Your task to perform on an android device: change your default location settings in chrome Image 0: 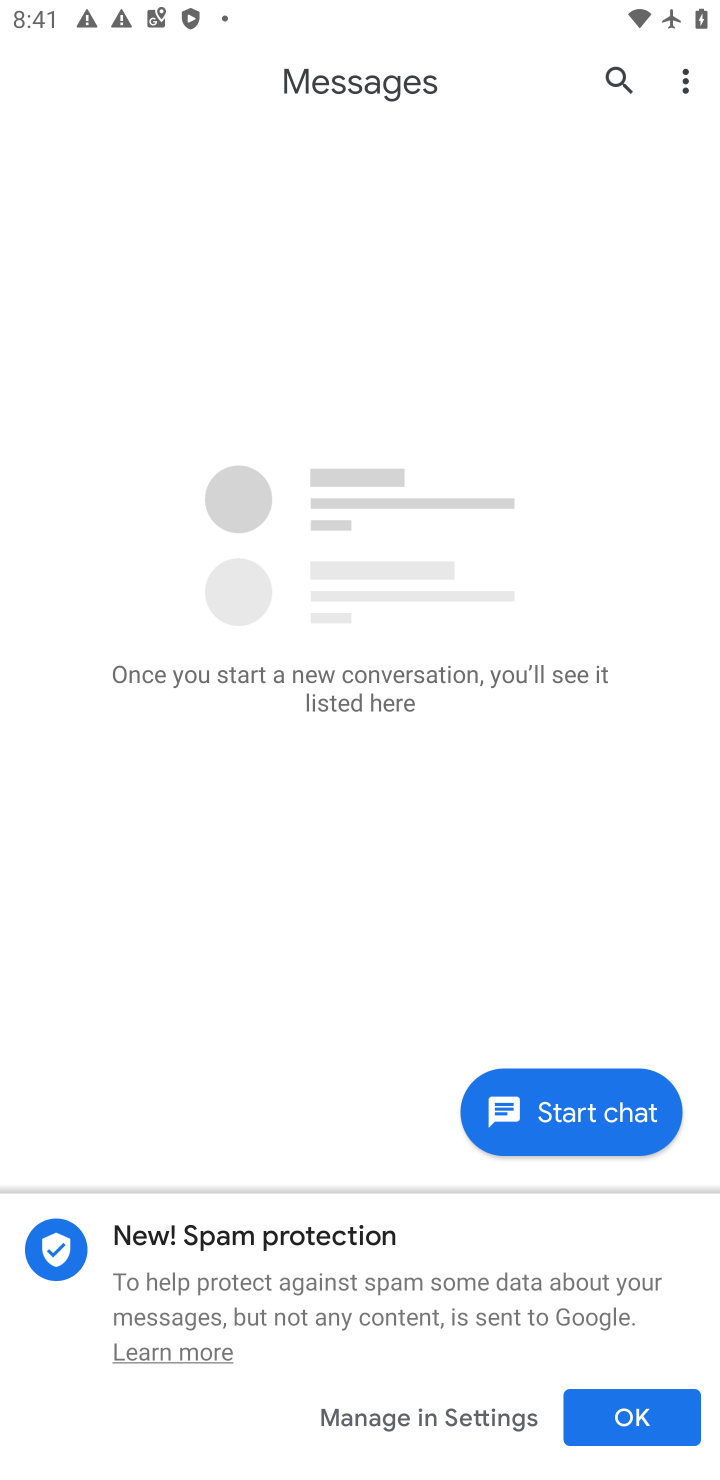
Step 0: press home button
Your task to perform on an android device: change your default location settings in chrome Image 1: 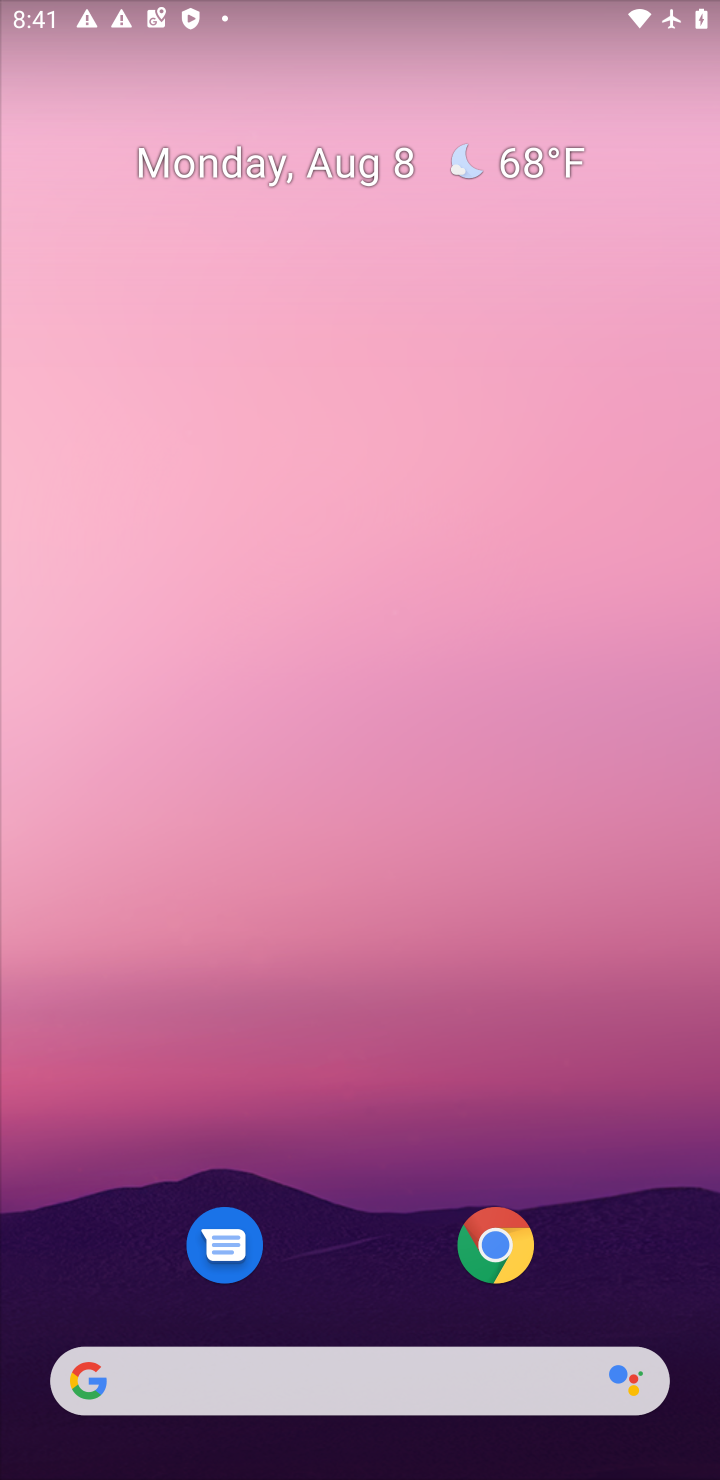
Step 1: drag from (333, 1217) to (472, 19)
Your task to perform on an android device: change your default location settings in chrome Image 2: 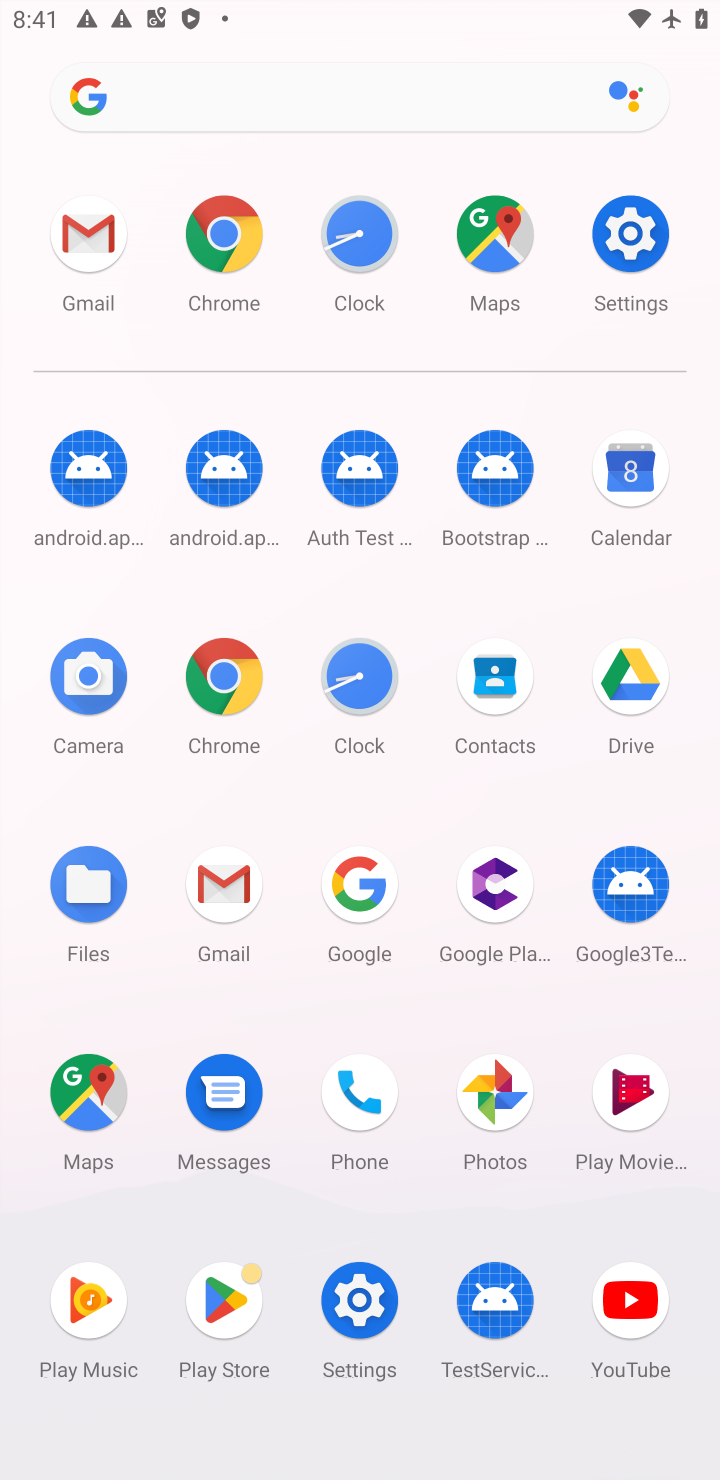
Step 2: click (219, 286)
Your task to perform on an android device: change your default location settings in chrome Image 3: 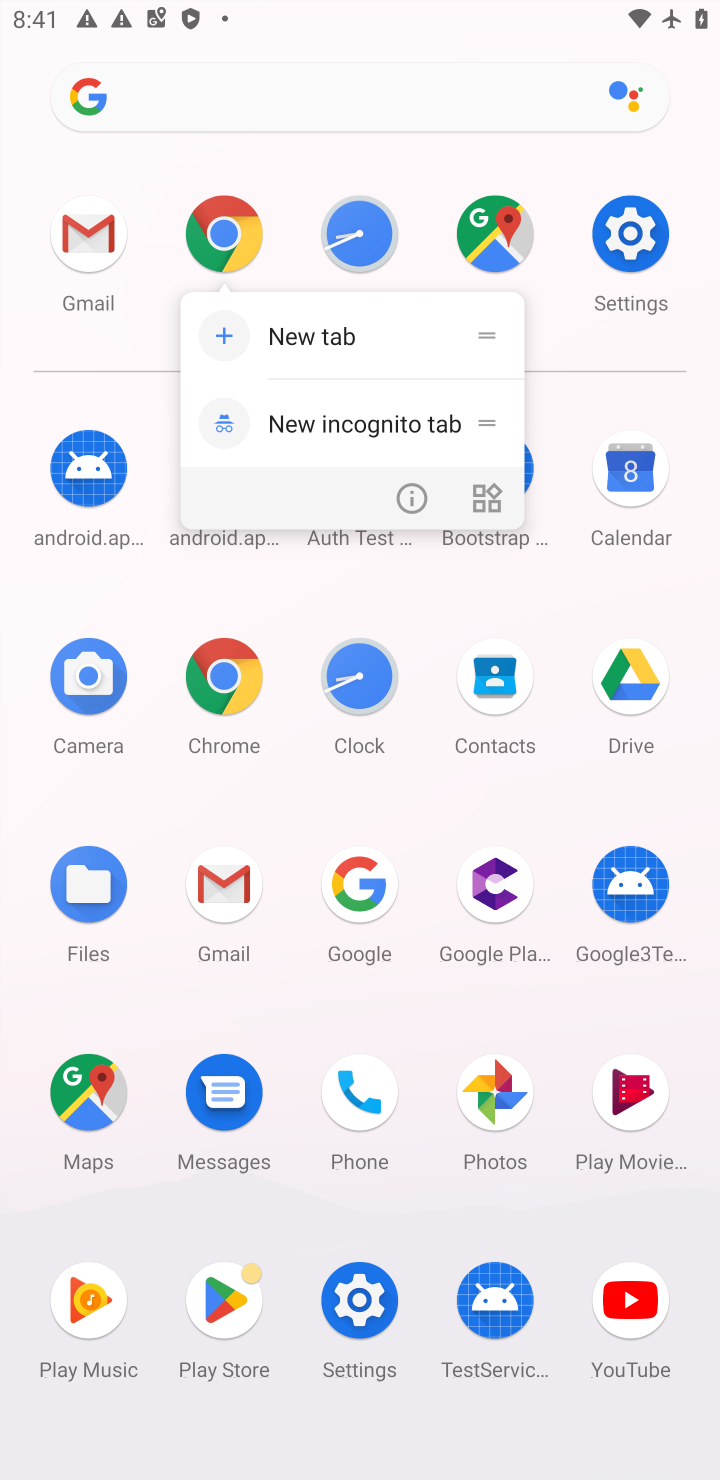
Step 3: click (203, 229)
Your task to perform on an android device: change your default location settings in chrome Image 4: 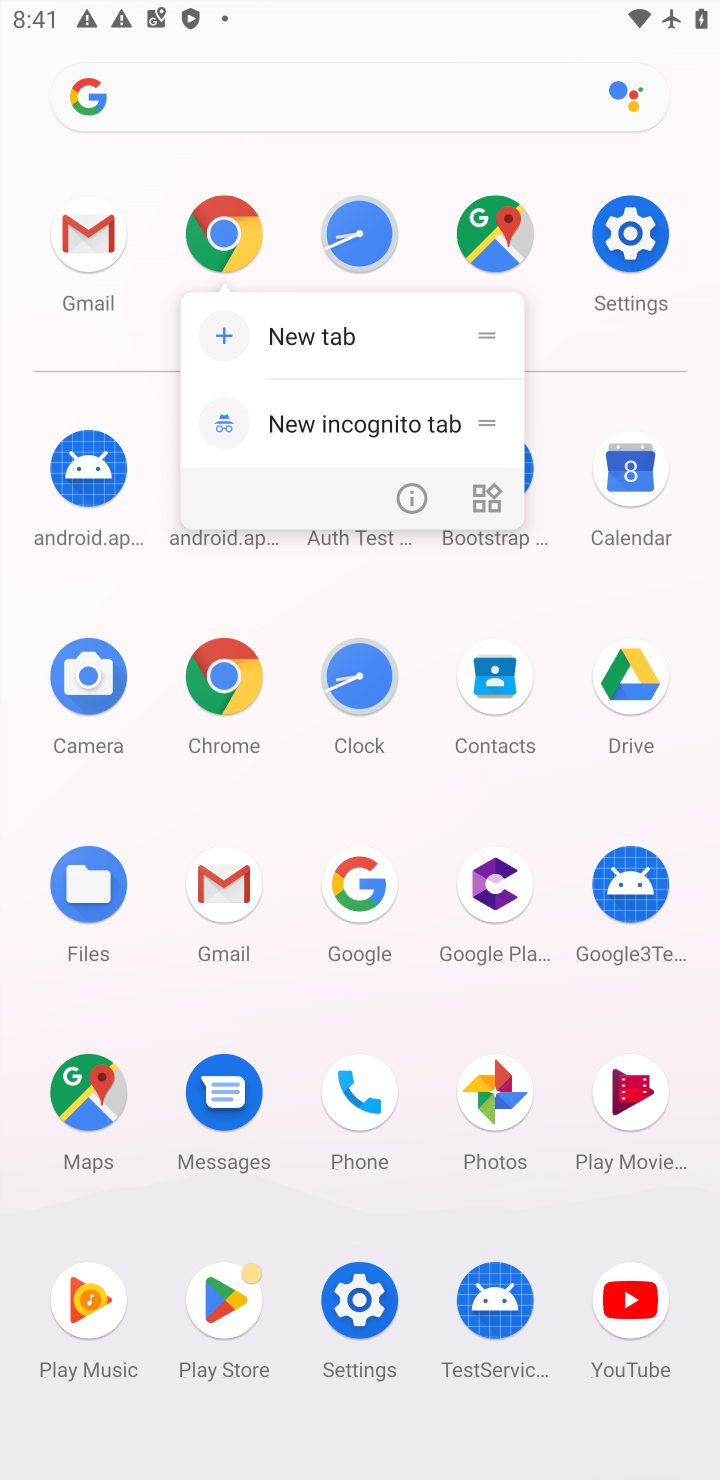
Step 4: click (212, 236)
Your task to perform on an android device: change your default location settings in chrome Image 5: 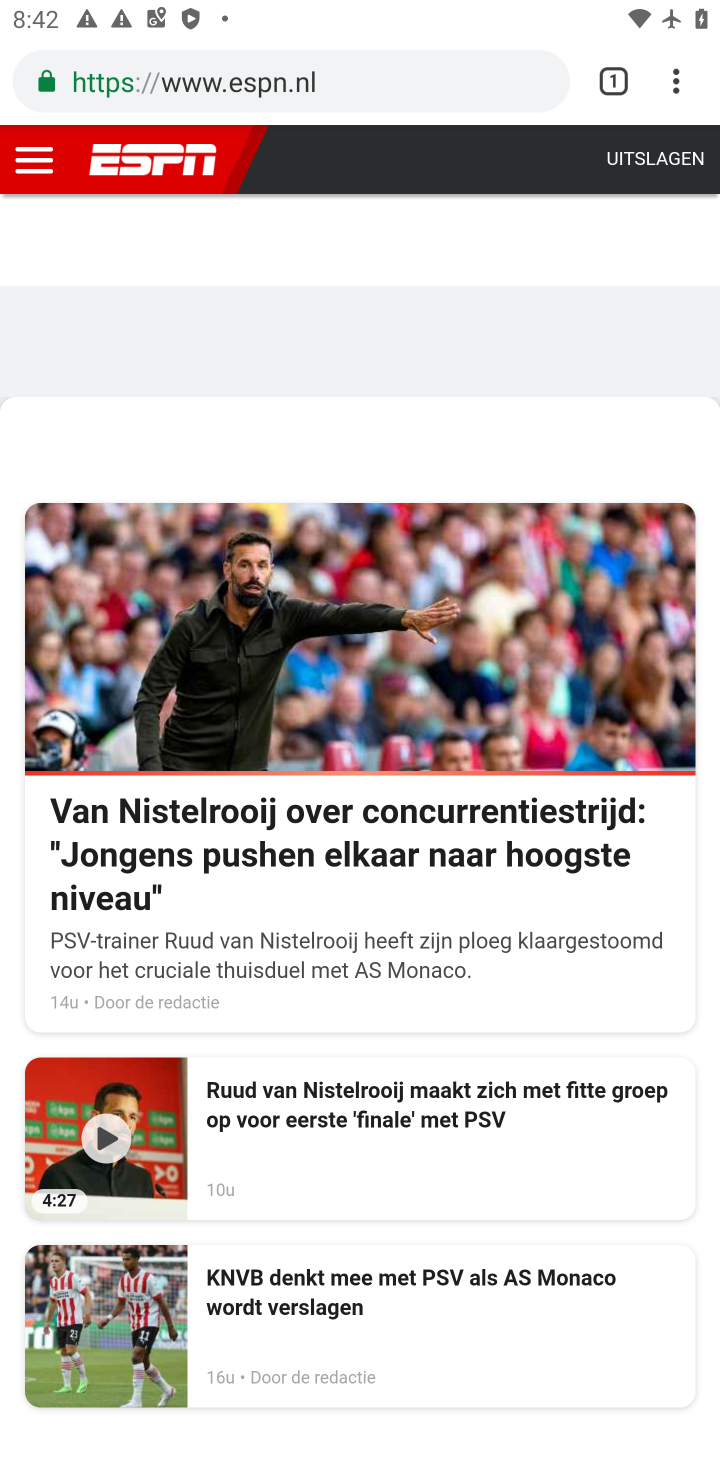
Step 5: click (661, 71)
Your task to perform on an android device: change your default location settings in chrome Image 6: 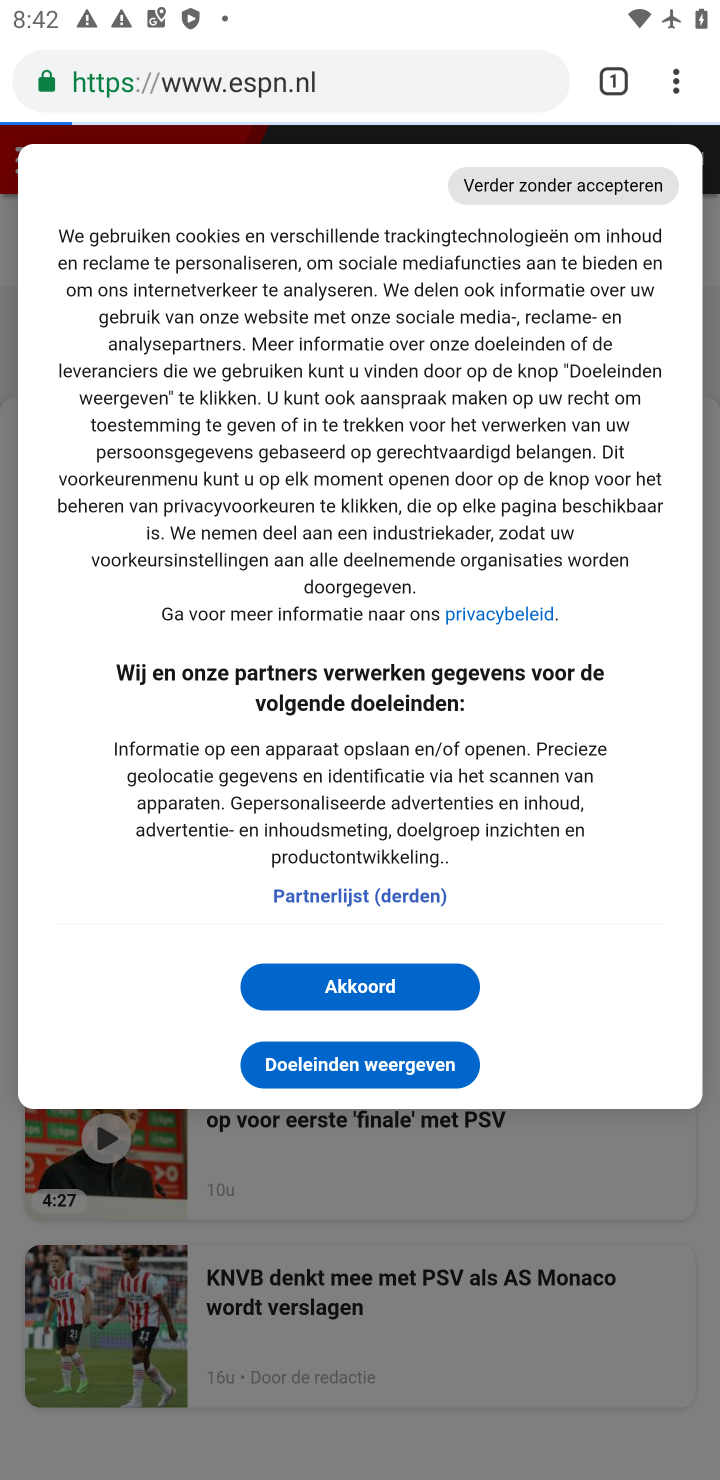
Step 6: click (658, 75)
Your task to perform on an android device: change your default location settings in chrome Image 7: 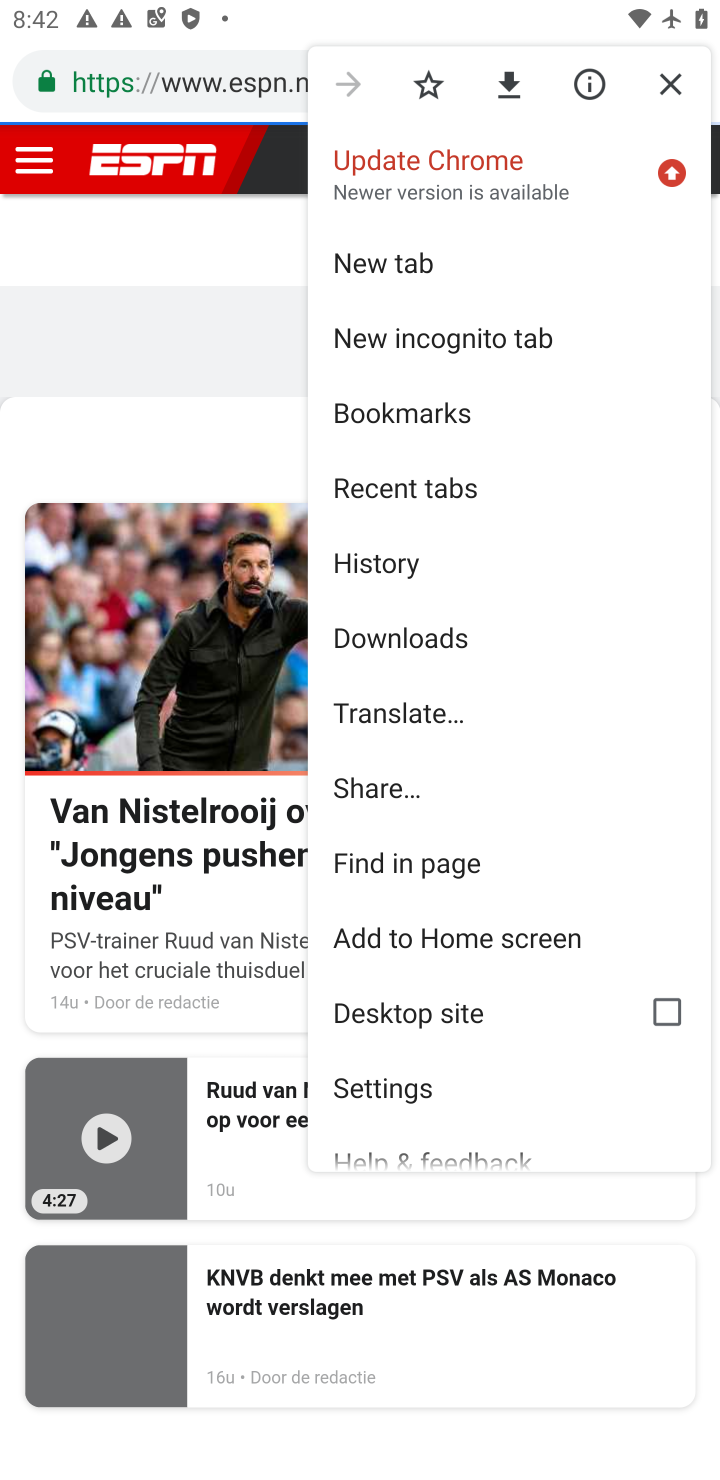
Step 7: click (420, 1095)
Your task to perform on an android device: change your default location settings in chrome Image 8: 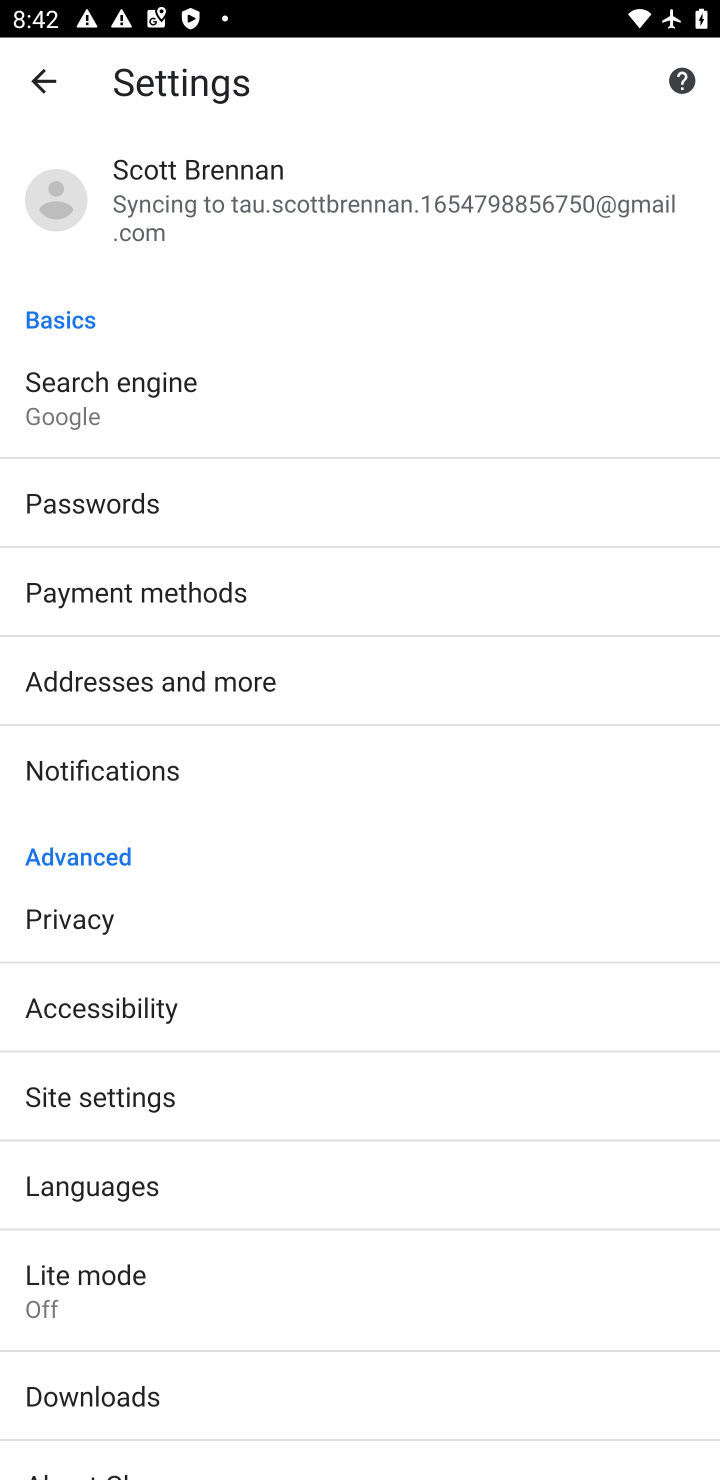
Step 8: click (112, 1102)
Your task to perform on an android device: change your default location settings in chrome Image 9: 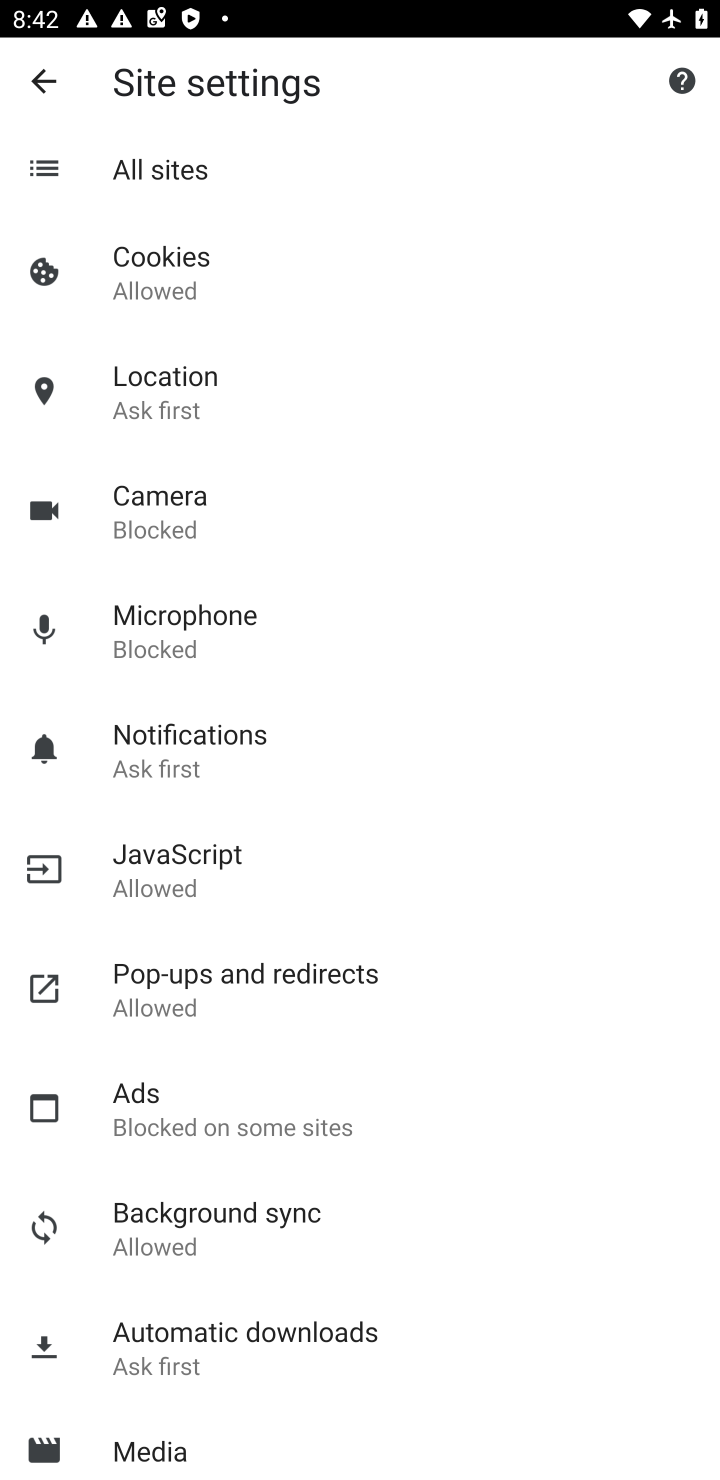
Step 9: click (186, 396)
Your task to perform on an android device: change your default location settings in chrome Image 10: 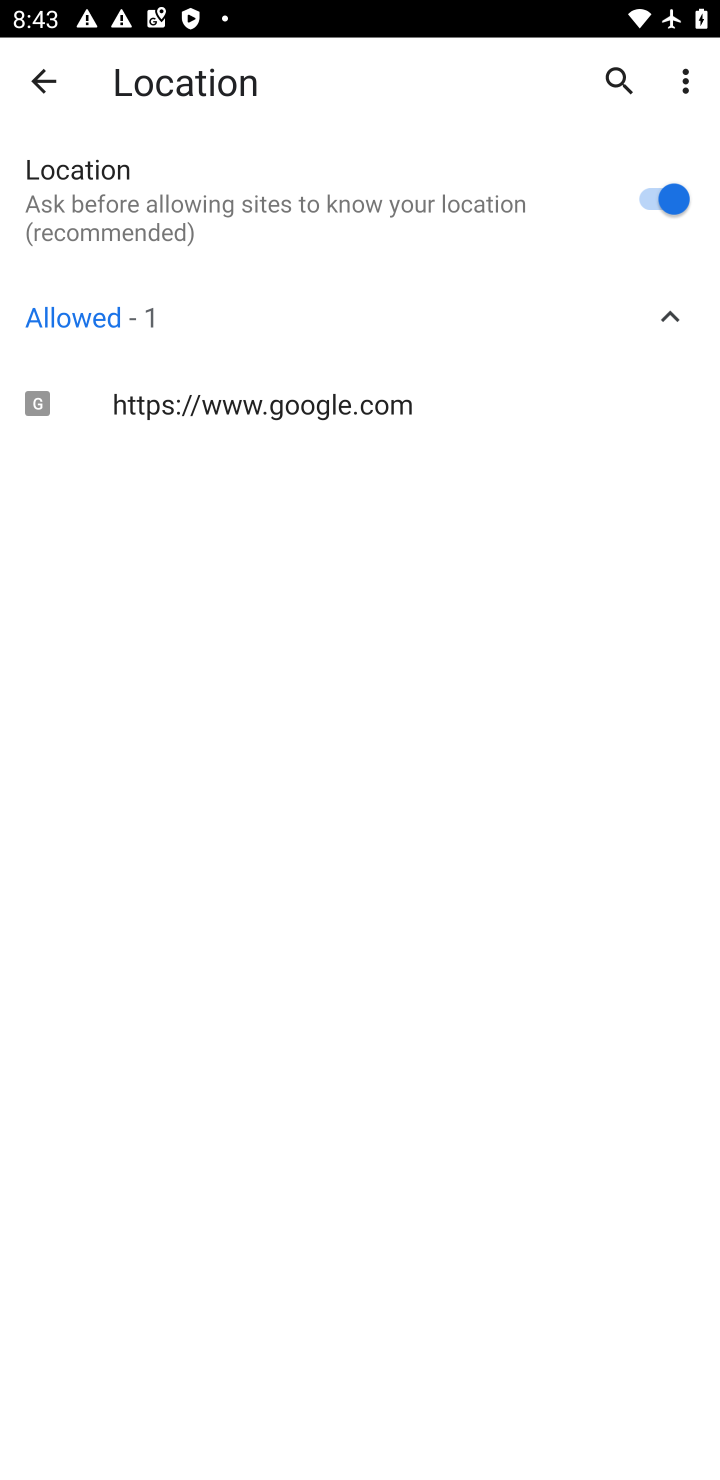
Step 10: click (612, 186)
Your task to perform on an android device: change your default location settings in chrome Image 11: 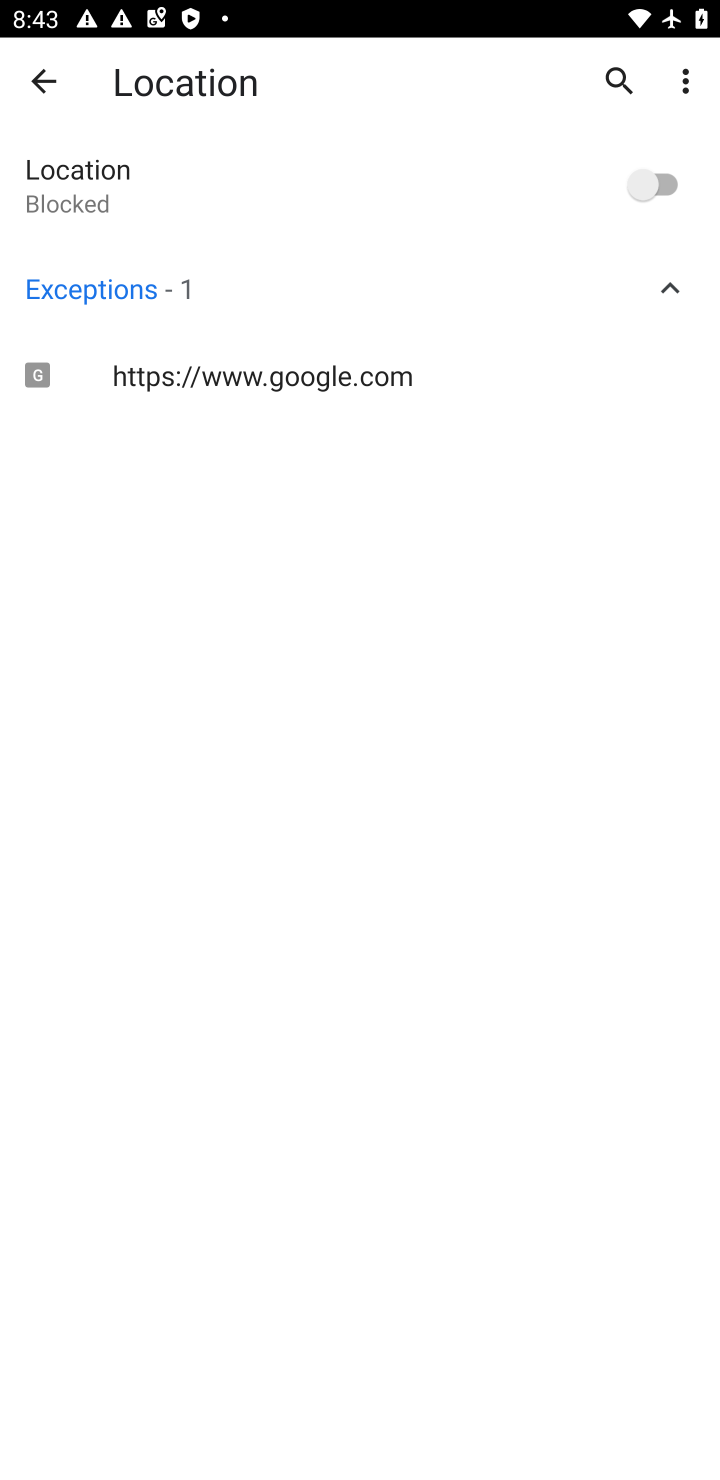
Step 11: task complete